Your task to perform on an android device: delete the emails in spam in the gmail app Image 0: 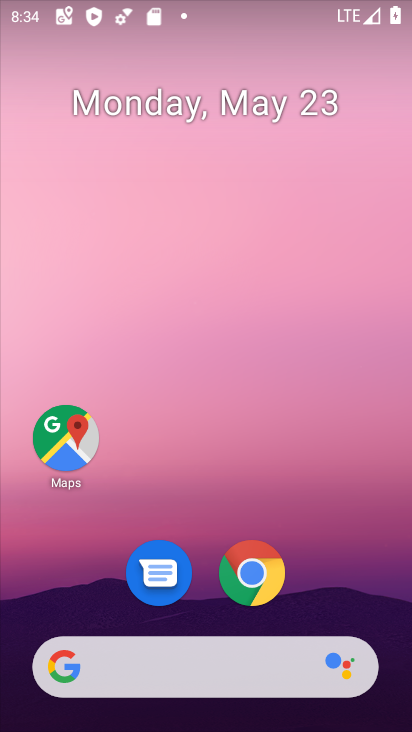
Step 0: drag from (208, 504) to (278, 2)
Your task to perform on an android device: delete the emails in spam in the gmail app Image 1: 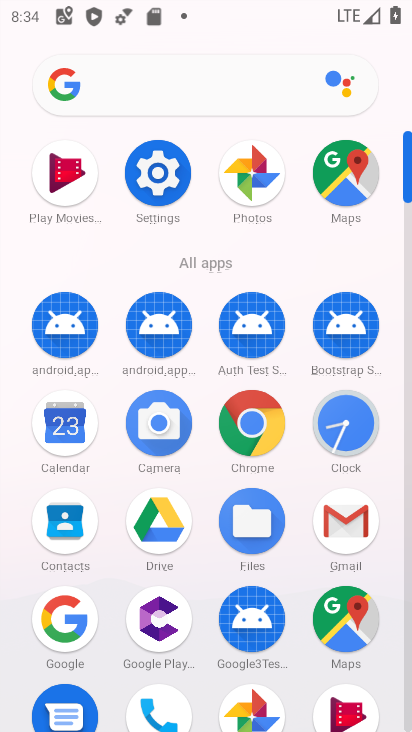
Step 1: click (353, 514)
Your task to perform on an android device: delete the emails in spam in the gmail app Image 2: 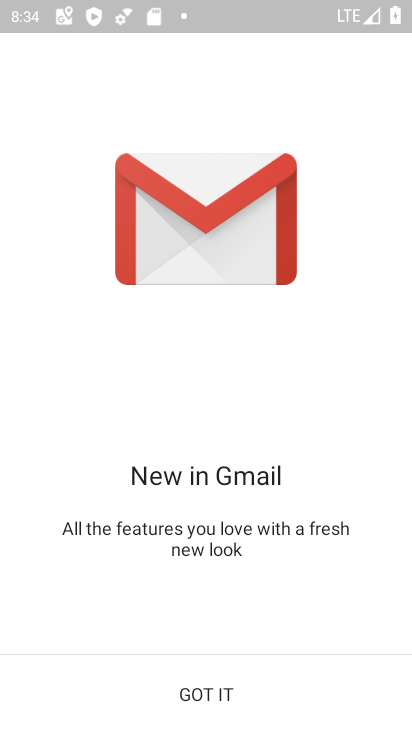
Step 2: click (238, 696)
Your task to perform on an android device: delete the emails in spam in the gmail app Image 3: 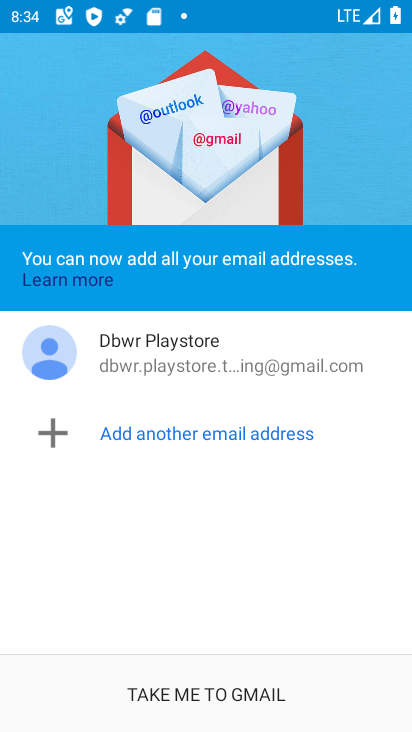
Step 3: click (238, 694)
Your task to perform on an android device: delete the emails in spam in the gmail app Image 4: 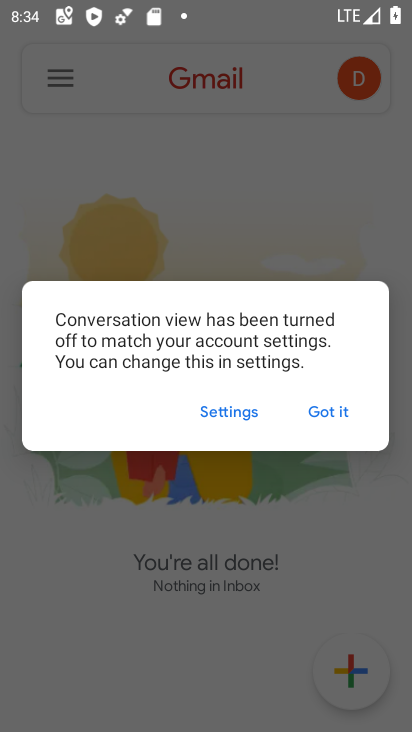
Step 4: click (342, 402)
Your task to perform on an android device: delete the emails in spam in the gmail app Image 5: 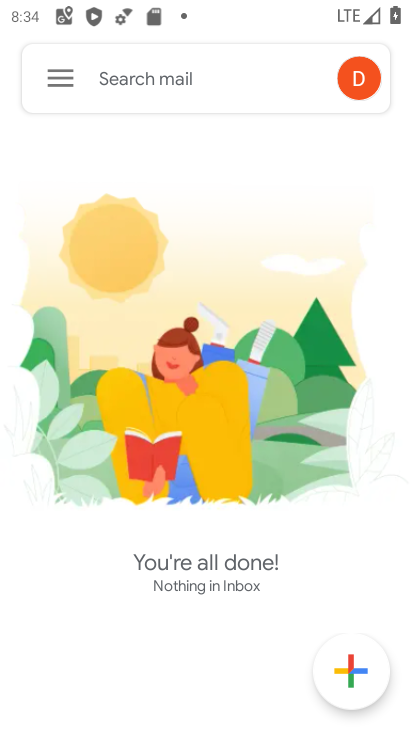
Step 5: click (61, 77)
Your task to perform on an android device: delete the emails in spam in the gmail app Image 6: 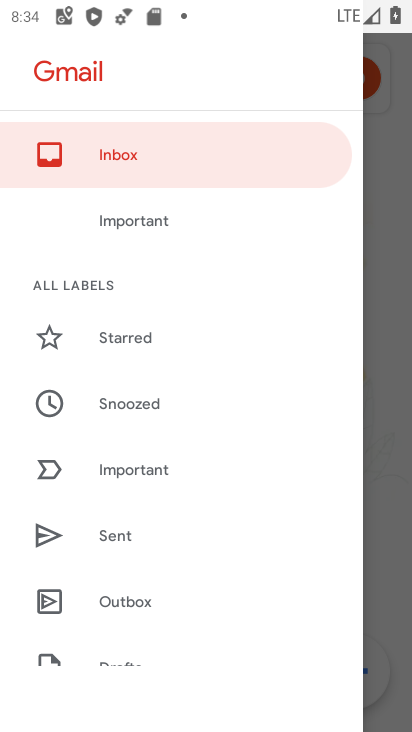
Step 6: drag from (195, 573) to (231, 137)
Your task to perform on an android device: delete the emails in spam in the gmail app Image 7: 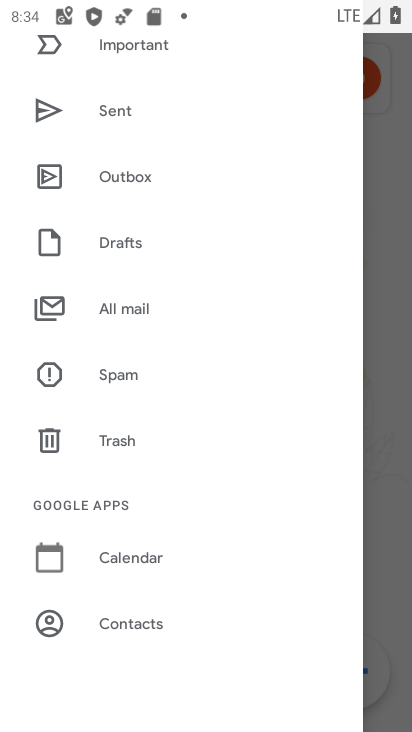
Step 7: click (135, 362)
Your task to perform on an android device: delete the emails in spam in the gmail app Image 8: 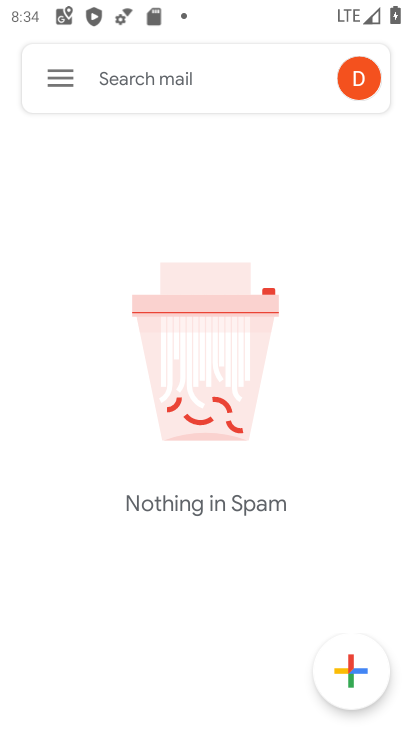
Step 8: task complete